Your task to perform on an android device: What is the recent news? Image 0: 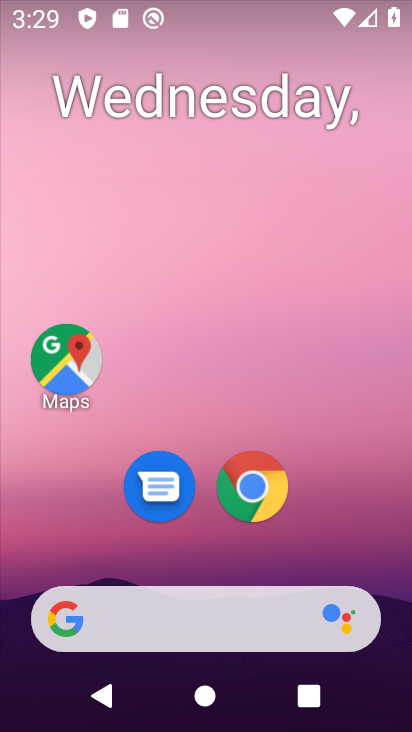
Step 0: drag from (188, 589) to (206, 154)
Your task to perform on an android device: What is the recent news? Image 1: 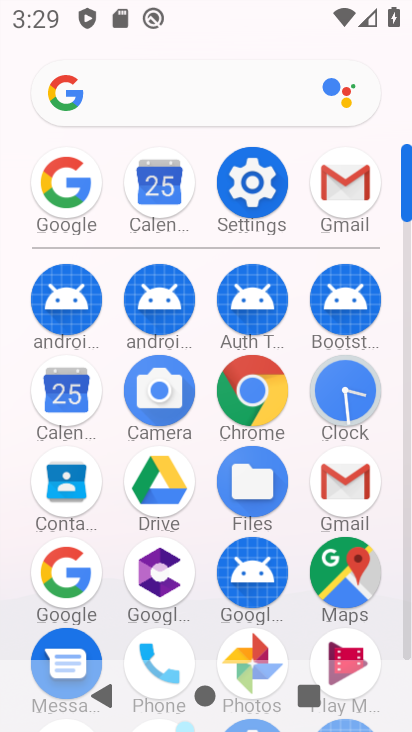
Step 1: click (67, 583)
Your task to perform on an android device: What is the recent news? Image 2: 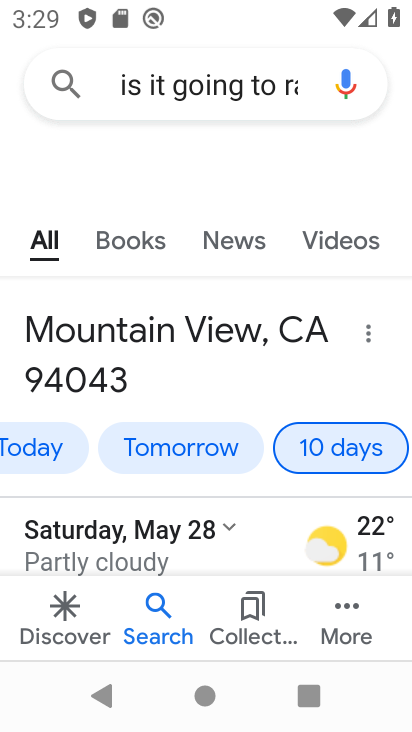
Step 2: drag from (138, 561) to (146, 101)
Your task to perform on an android device: What is the recent news? Image 3: 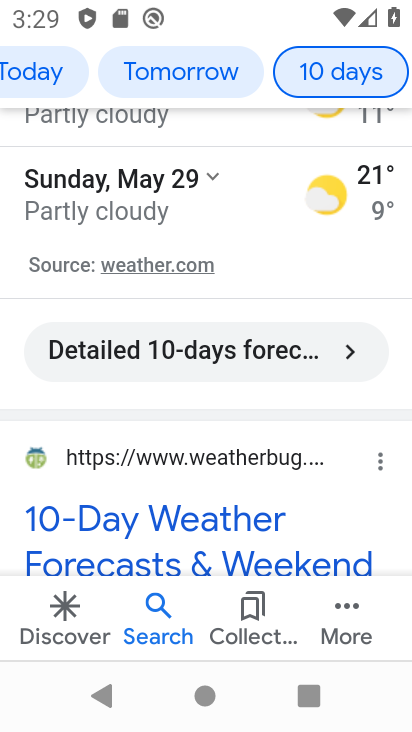
Step 3: drag from (214, 147) to (222, 528)
Your task to perform on an android device: What is the recent news? Image 4: 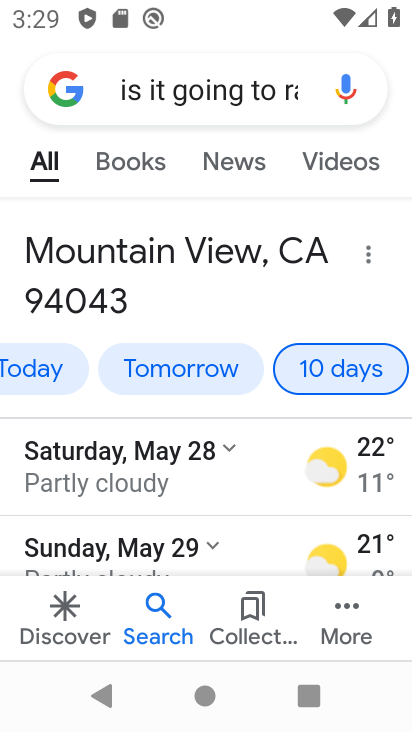
Step 4: click (313, 93)
Your task to perform on an android device: What is the recent news? Image 5: 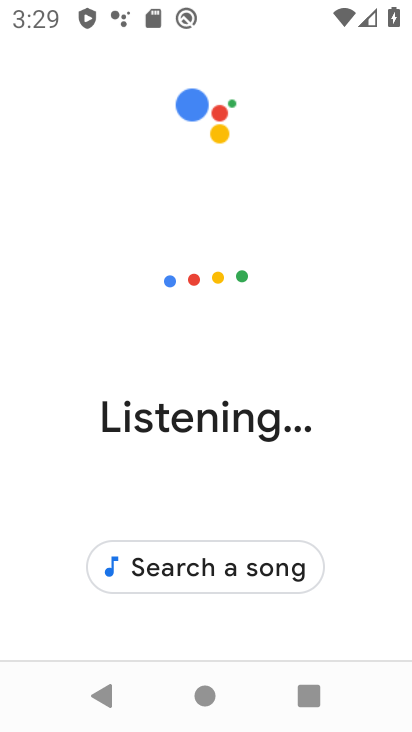
Step 5: press back button
Your task to perform on an android device: What is the recent news? Image 6: 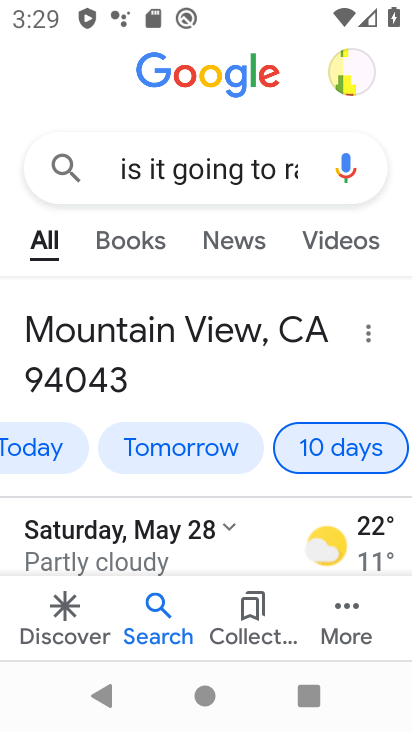
Step 6: click (269, 171)
Your task to perform on an android device: What is the recent news? Image 7: 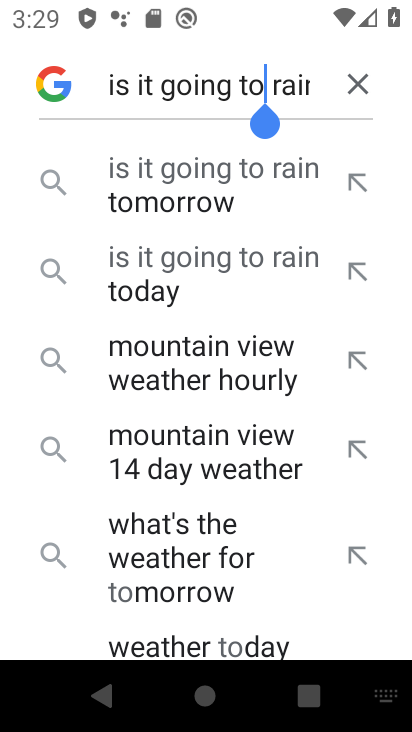
Step 7: click (351, 89)
Your task to perform on an android device: What is the recent news? Image 8: 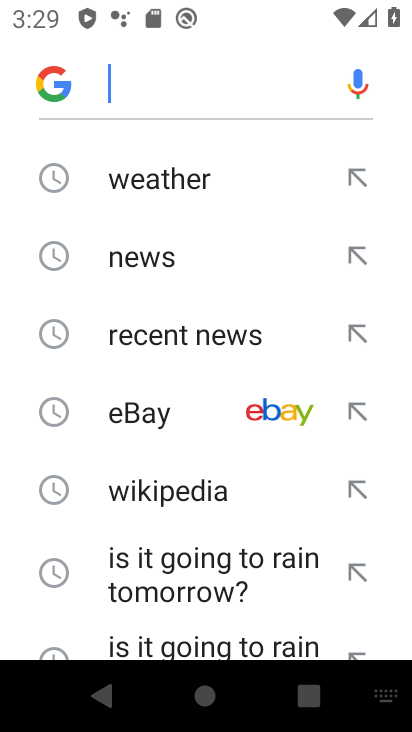
Step 8: click (187, 338)
Your task to perform on an android device: What is the recent news? Image 9: 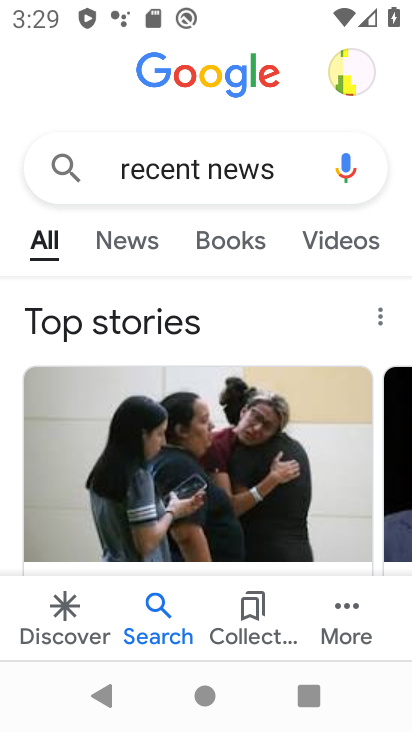
Step 9: task complete